Your task to perform on an android device: Go to internet settings Image 0: 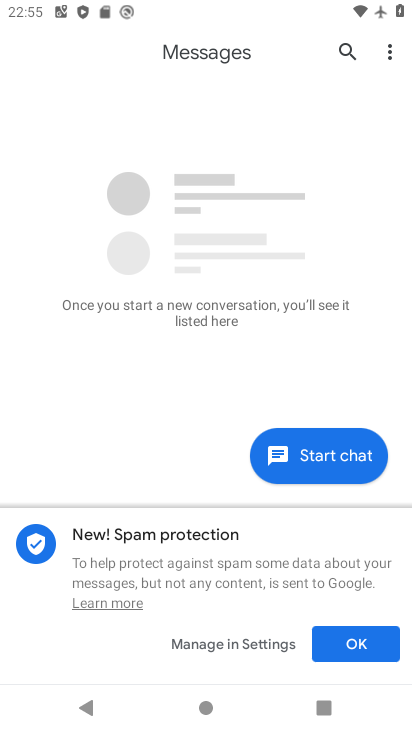
Step 0: press home button
Your task to perform on an android device: Go to internet settings Image 1: 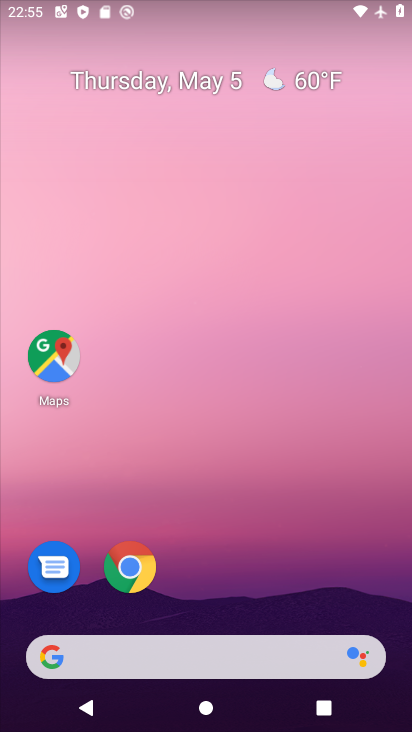
Step 1: drag from (223, 562) to (279, 270)
Your task to perform on an android device: Go to internet settings Image 2: 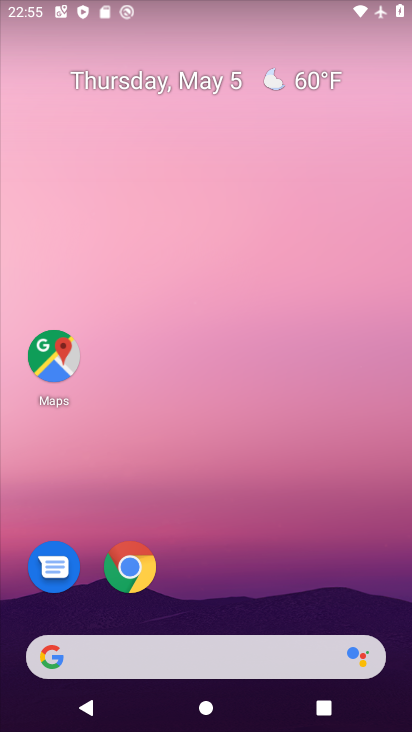
Step 2: drag from (214, 581) to (236, 160)
Your task to perform on an android device: Go to internet settings Image 3: 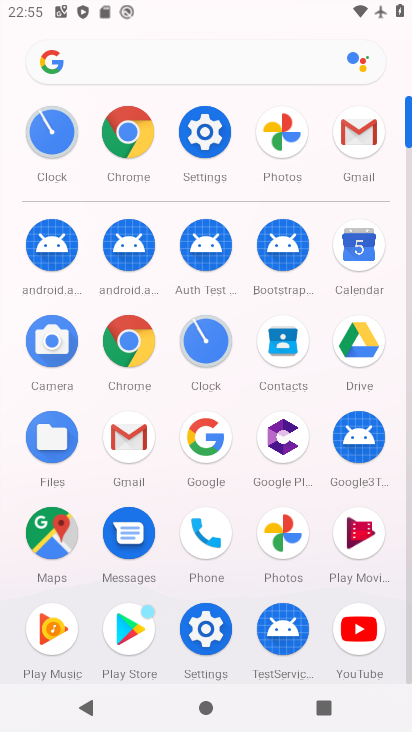
Step 3: click (213, 151)
Your task to perform on an android device: Go to internet settings Image 4: 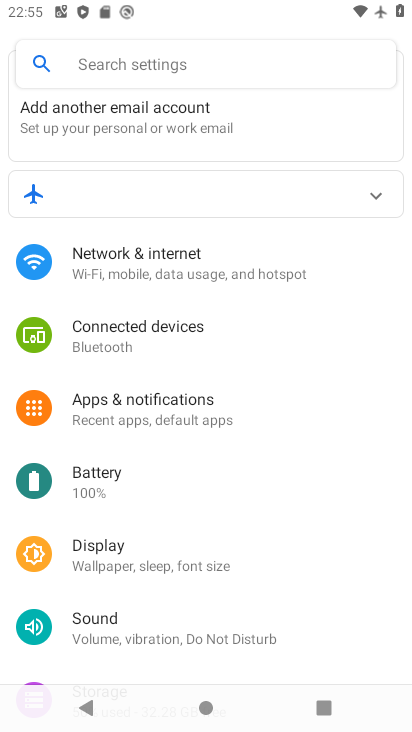
Step 4: click (176, 265)
Your task to perform on an android device: Go to internet settings Image 5: 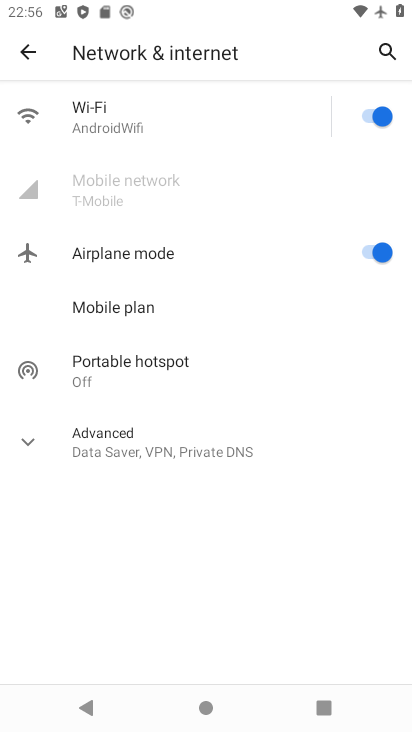
Step 5: task complete